Your task to perform on an android device: turn vacation reply on in the gmail app Image 0: 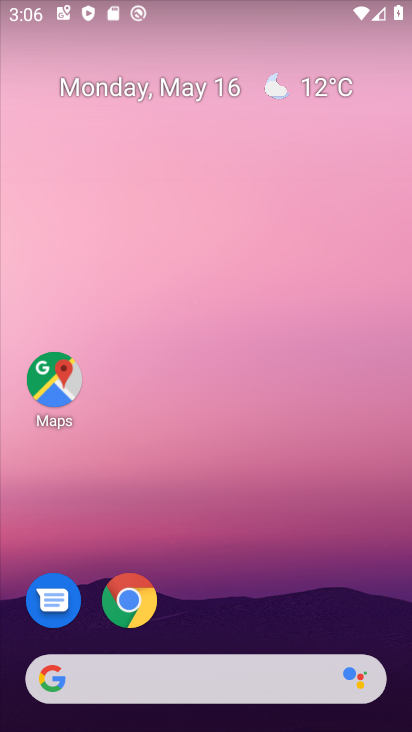
Step 0: drag from (229, 641) to (403, 383)
Your task to perform on an android device: turn vacation reply on in the gmail app Image 1: 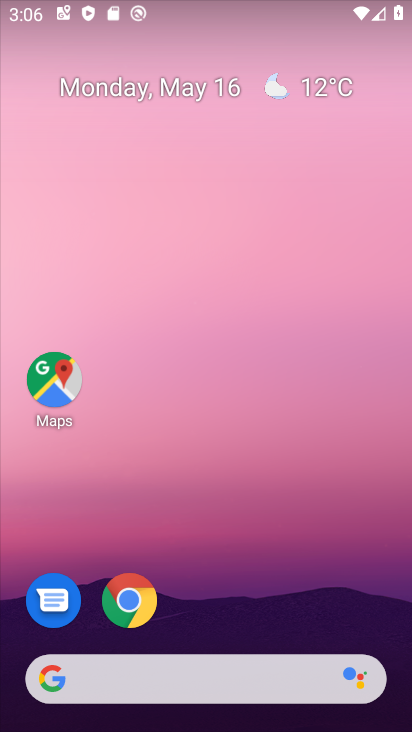
Step 1: drag from (198, 646) to (305, 19)
Your task to perform on an android device: turn vacation reply on in the gmail app Image 2: 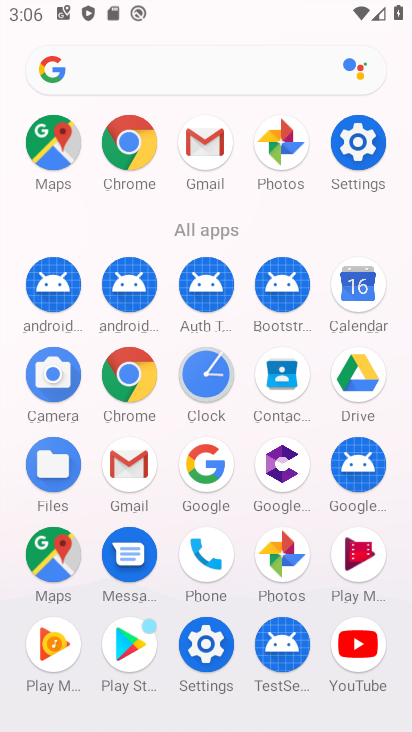
Step 2: click (121, 476)
Your task to perform on an android device: turn vacation reply on in the gmail app Image 3: 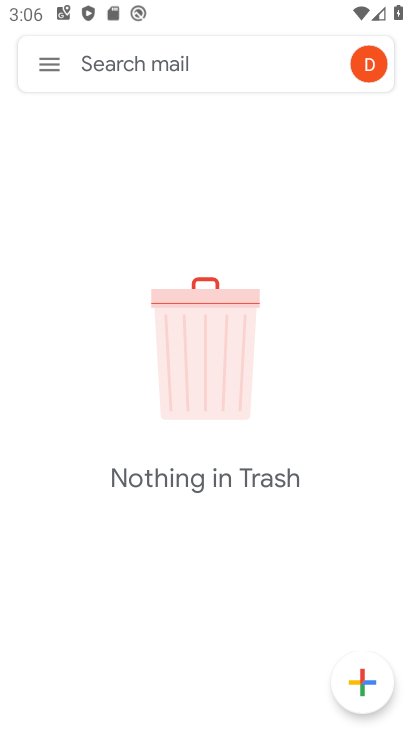
Step 3: click (38, 43)
Your task to perform on an android device: turn vacation reply on in the gmail app Image 4: 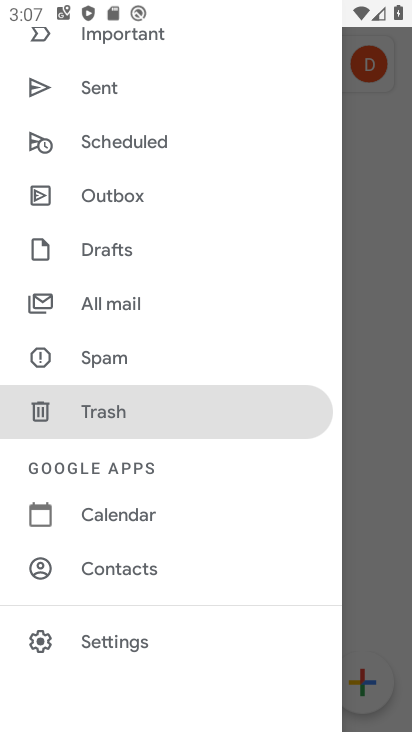
Step 4: click (98, 639)
Your task to perform on an android device: turn vacation reply on in the gmail app Image 5: 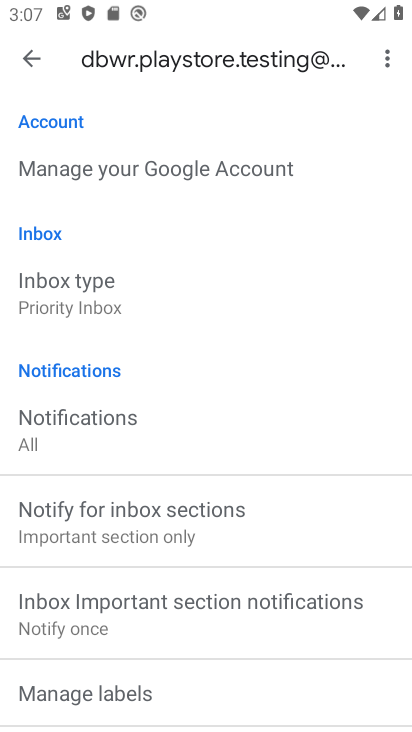
Step 5: drag from (197, 580) to (274, 38)
Your task to perform on an android device: turn vacation reply on in the gmail app Image 6: 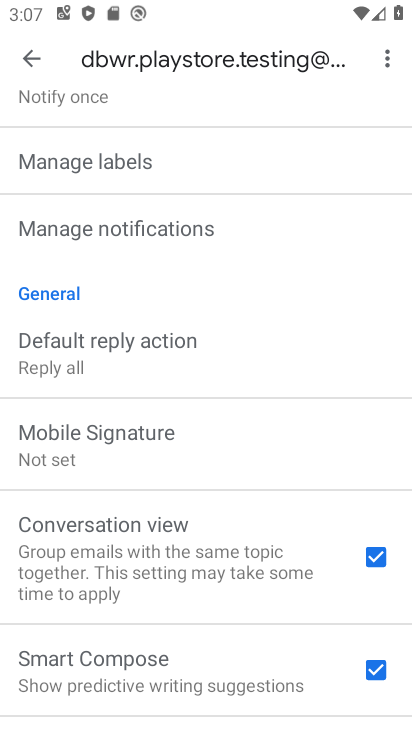
Step 6: drag from (386, 675) to (349, 81)
Your task to perform on an android device: turn vacation reply on in the gmail app Image 7: 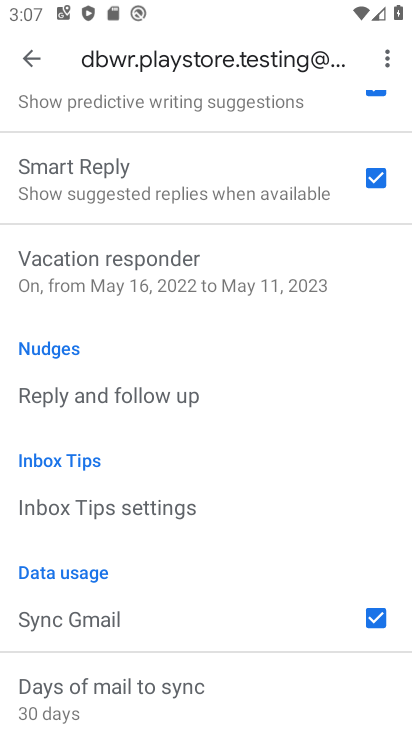
Step 7: drag from (289, 665) to (193, 188)
Your task to perform on an android device: turn vacation reply on in the gmail app Image 8: 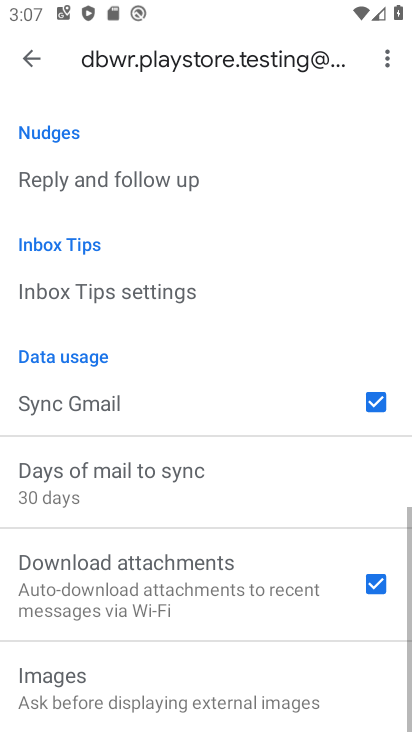
Step 8: drag from (177, 340) to (198, 714)
Your task to perform on an android device: turn vacation reply on in the gmail app Image 9: 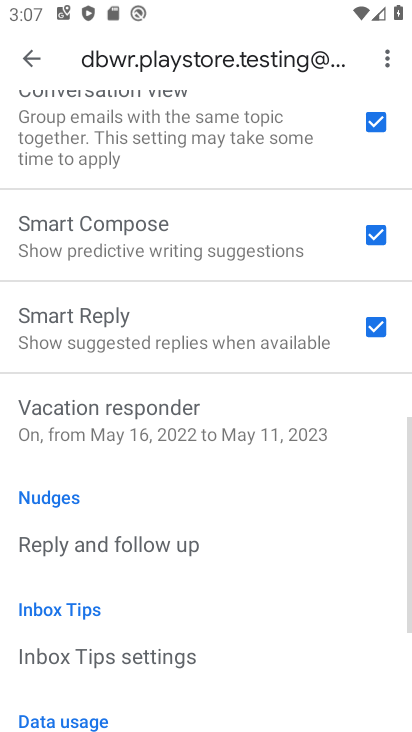
Step 9: click (165, 449)
Your task to perform on an android device: turn vacation reply on in the gmail app Image 10: 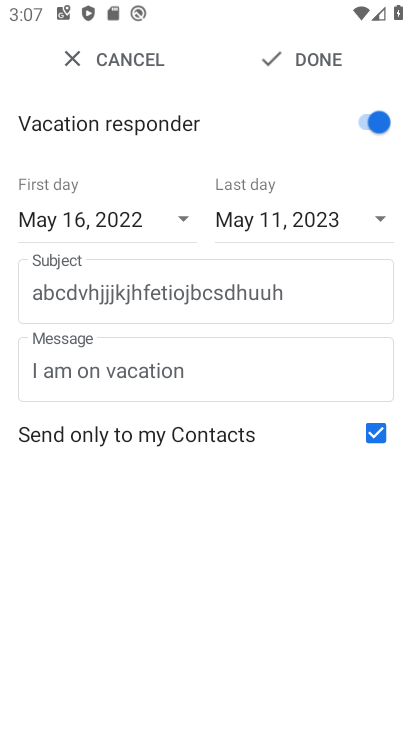
Step 10: click (340, 57)
Your task to perform on an android device: turn vacation reply on in the gmail app Image 11: 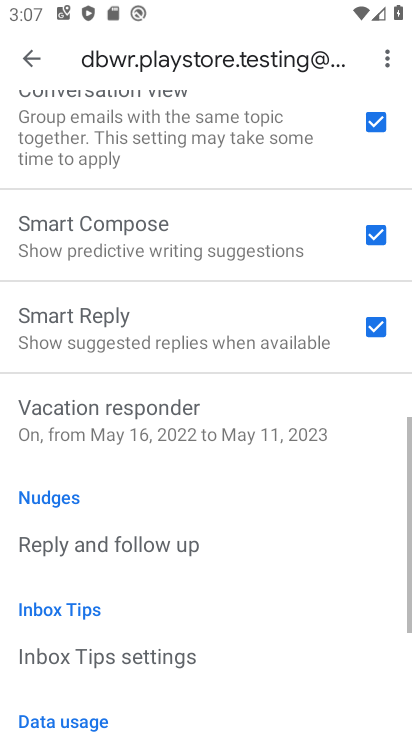
Step 11: task complete